Your task to perform on an android device: Open Android settings Image 0: 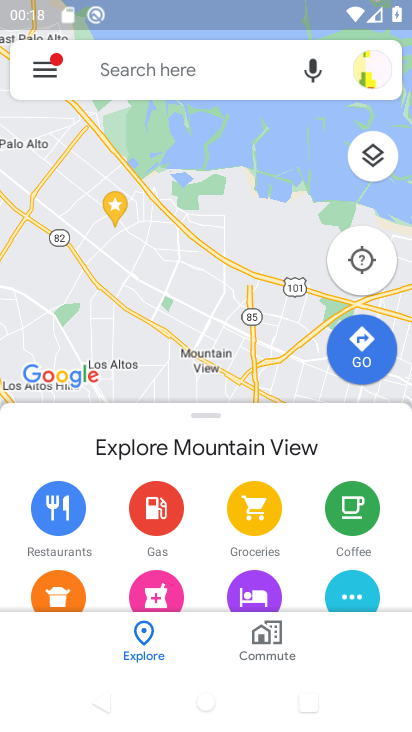
Step 0: press back button
Your task to perform on an android device: Open Android settings Image 1: 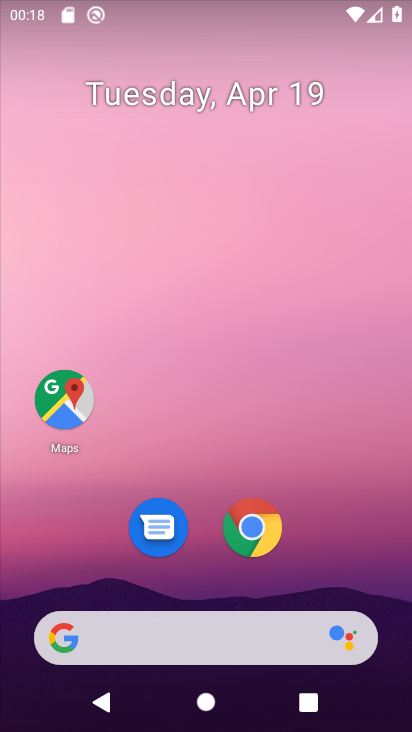
Step 1: drag from (320, 562) to (281, 15)
Your task to perform on an android device: Open Android settings Image 2: 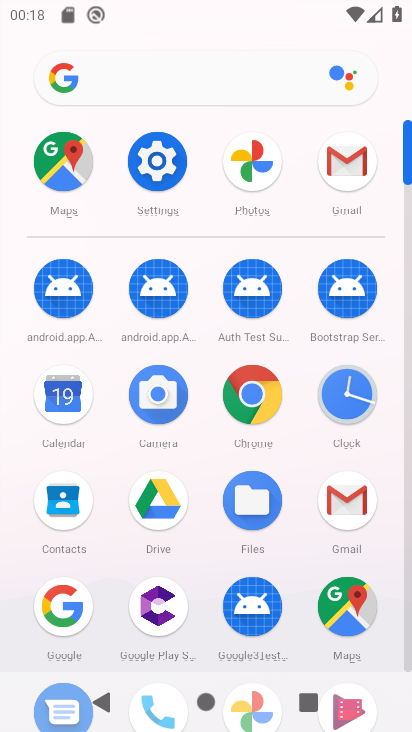
Step 2: click (160, 160)
Your task to perform on an android device: Open Android settings Image 3: 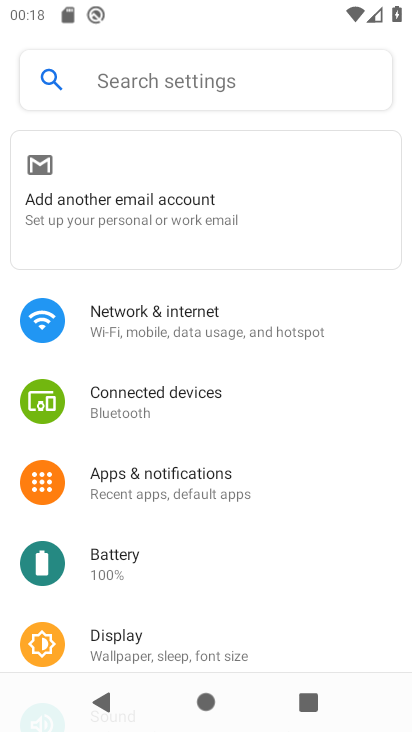
Step 3: drag from (187, 568) to (171, 387)
Your task to perform on an android device: Open Android settings Image 4: 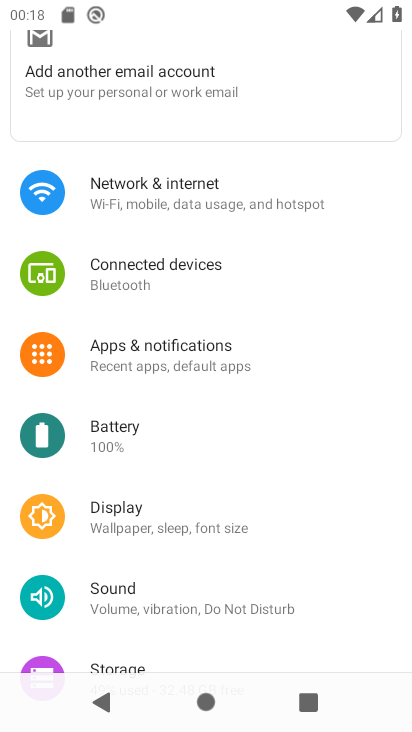
Step 4: drag from (185, 567) to (197, 404)
Your task to perform on an android device: Open Android settings Image 5: 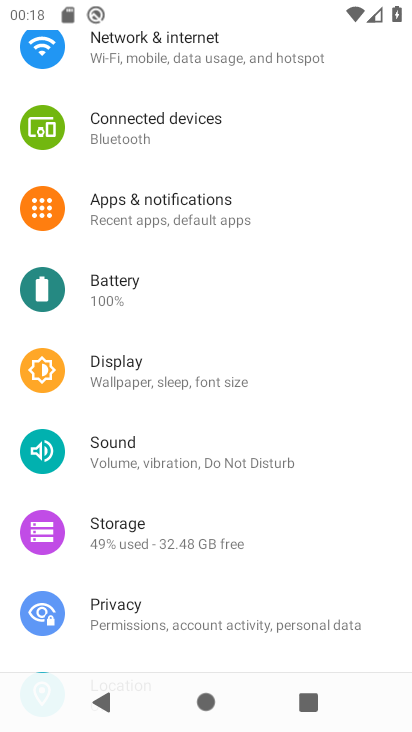
Step 5: drag from (165, 592) to (158, 470)
Your task to perform on an android device: Open Android settings Image 6: 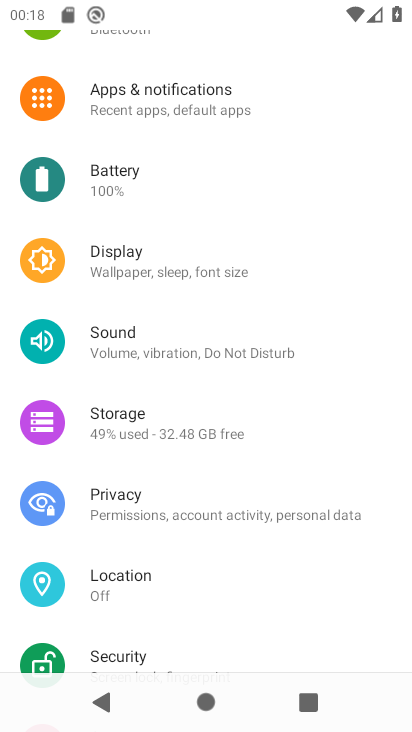
Step 6: drag from (161, 604) to (179, 441)
Your task to perform on an android device: Open Android settings Image 7: 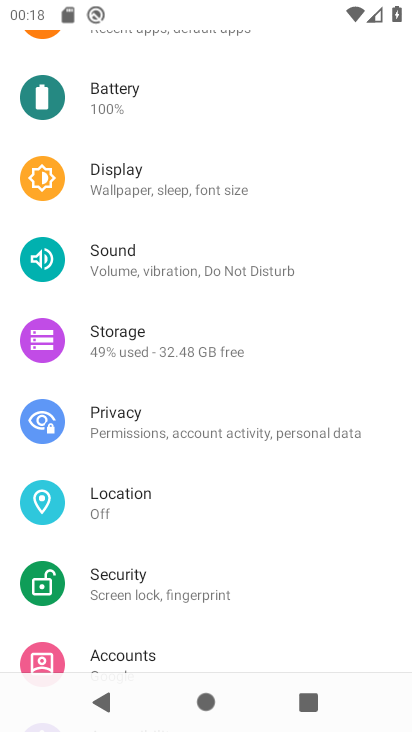
Step 7: drag from (164, 610) to (226, 285)
Your task to perform on an android device: Open Android settings Image 8: 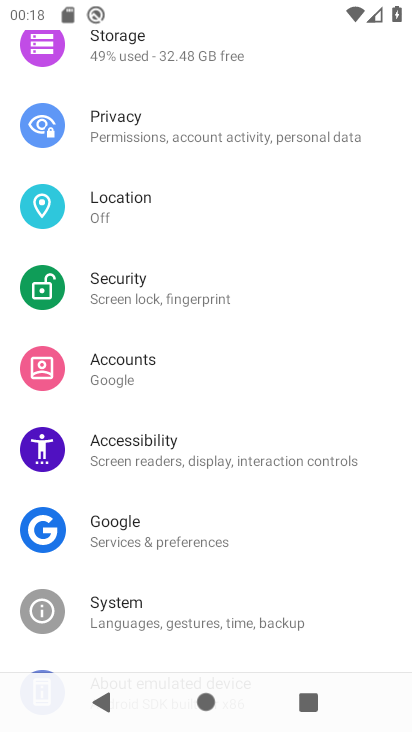
Step 8: click (160, 609)
Your task to perform on an android device: Open Android settings Image 9: 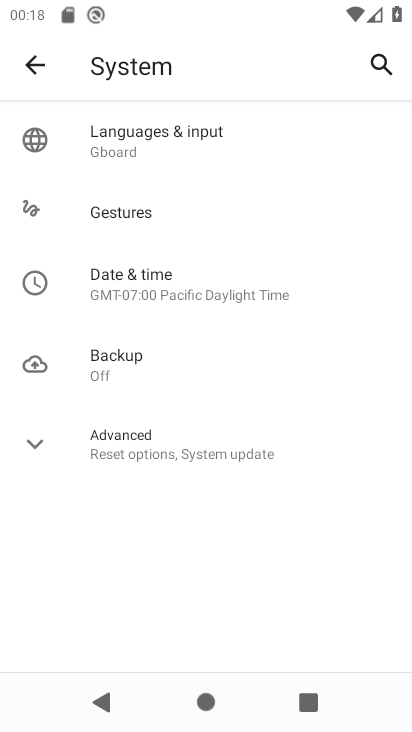
Step 9: task complete